Your task to perform on an android device: choose inbox layout in the gmail app Image 0: 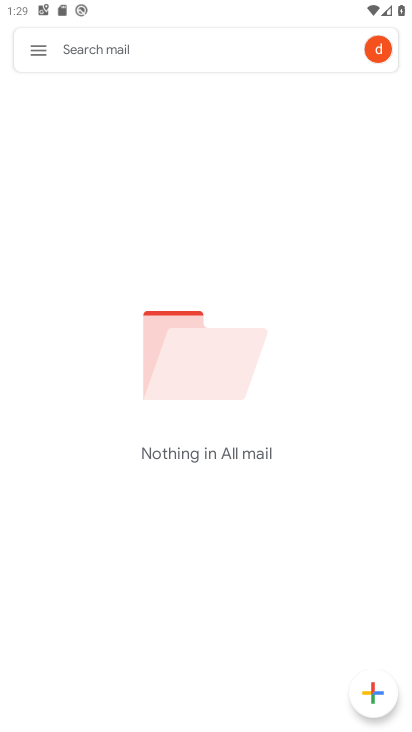
Step 0: press home button
Your task to perform on an android device: choose inbox layout in the gmail app Image 1: 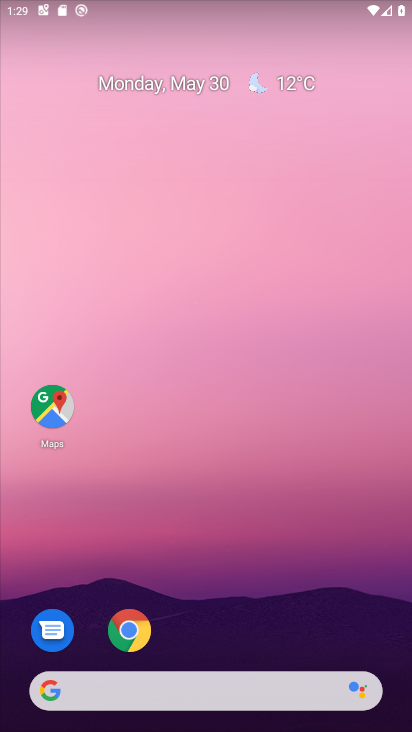
Step 1: drag from (176, 685) to (206, 16)
Your task to perform on an android device: choose inbox layout in the gmail app Image 2: 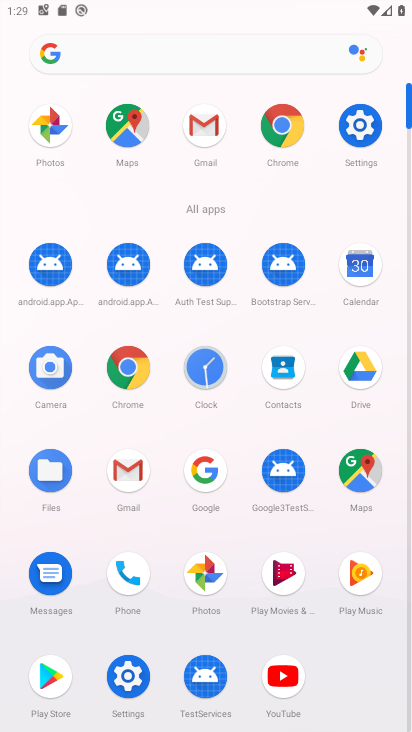
Step 2: click (187, 127)
Your task to perform on an android device: choose inbox layout in the gmail app Image 3: 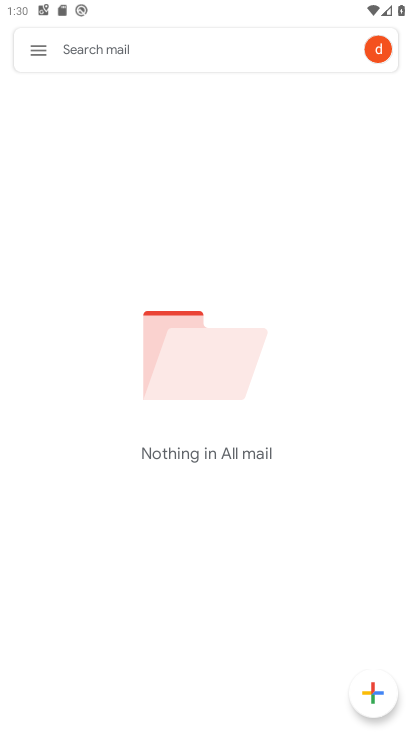
Step 3: click (39, 52)
Your task to perform on an android device: choose inbox layout in the gmail app Image 4: 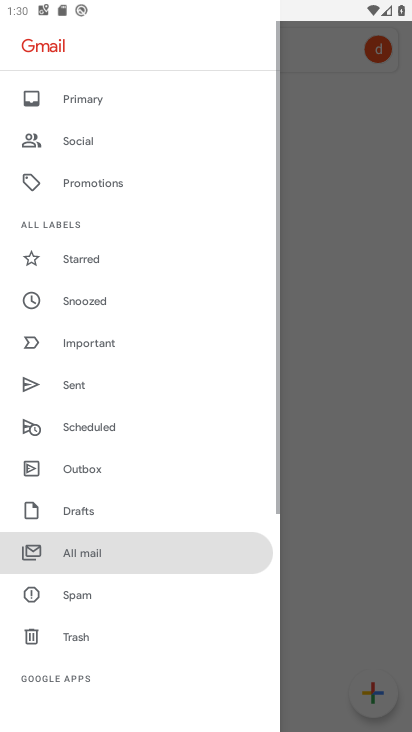
Step 4: drag from (176, 621) to (201, 70)
Your task to perform on an android device: choose inbox layout in the gmail app Image 5: 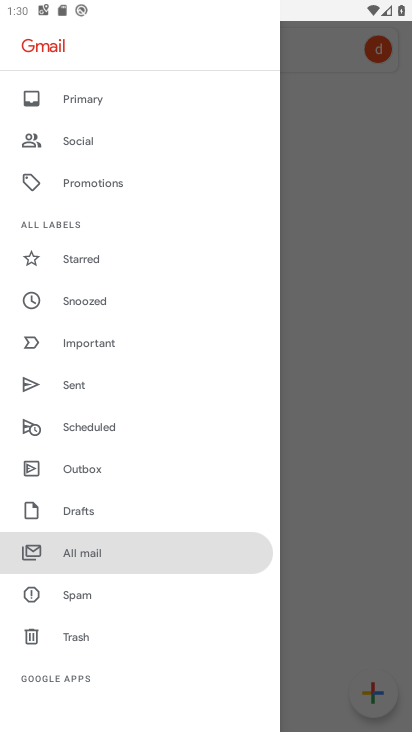
Step 5: drag from (117, 650) to (175, 103)
Your task to perform on an android device: choose inbox layout in the gmail app Image 6: 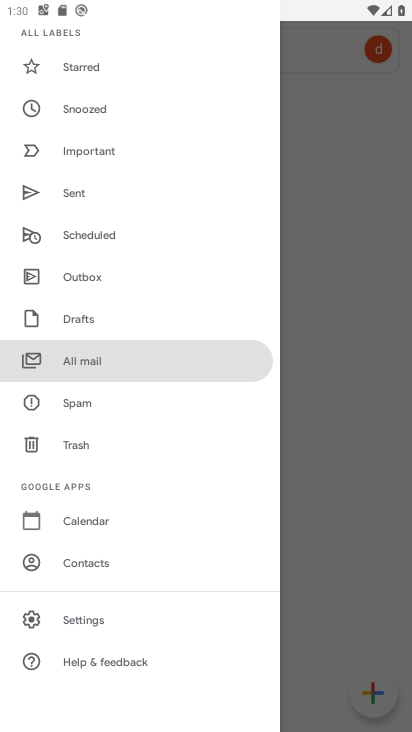
Step 6: click (87, 624)
Your task to perform on an android device: choose inbox layout in the gmail app Image 7: 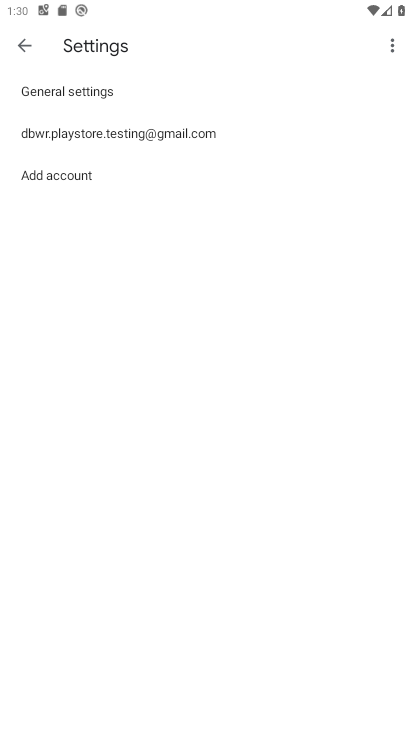
Step 7: click (157, 122)
Your task to perform on an android device: choose inbox layout in the gmail app Image 8: 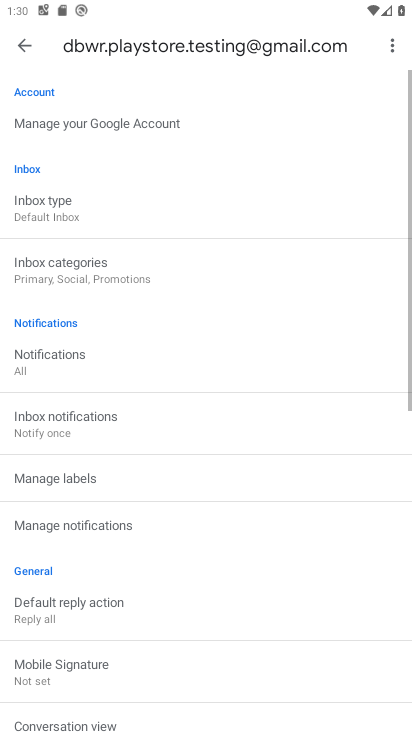
Step 8: click (93, 208)
Your task to perform on an android device: choose inbox layout in the gmail app Image 9: 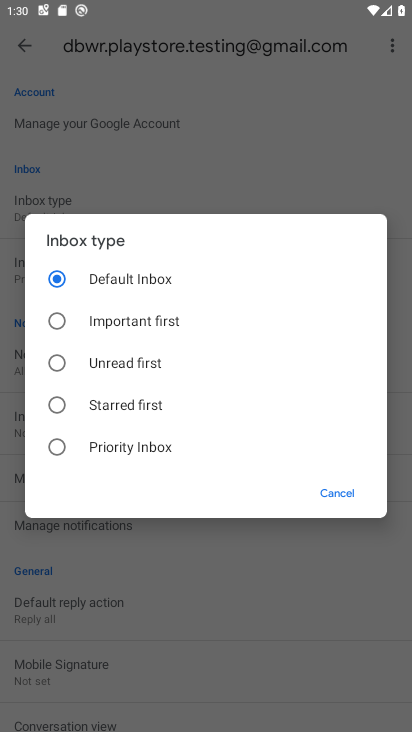
Step 9: click (120, 320)
Your task to perform on an android device: choose inbox layout in the gmail app Image 10: 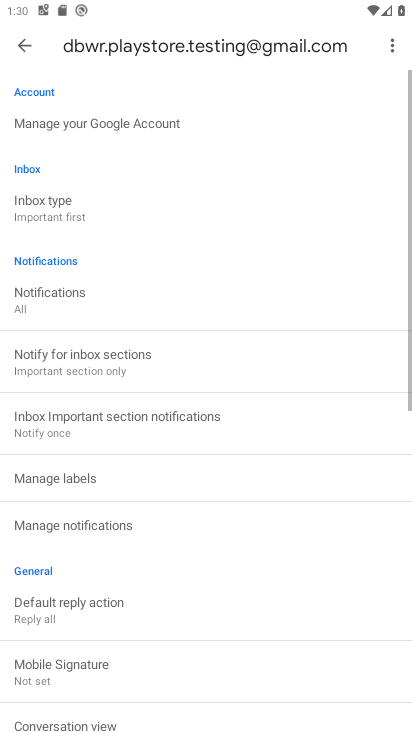
Step 10: task complete